Your task to perform on an android device: Is it going to rain today? Image 0: 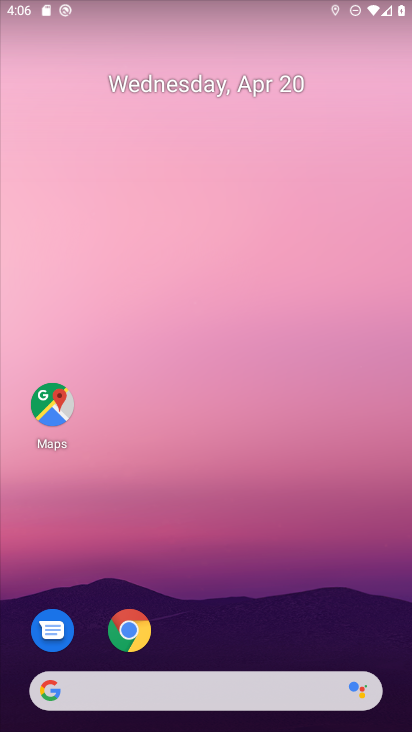
Step 0: drag from (277, 681) to (312, 65)
Your task to perform on an android device: Is it going to rain today? Image 1: 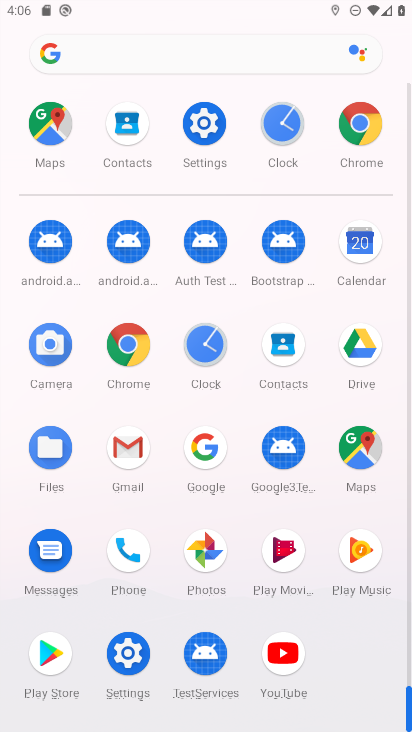
Step 1: click (136, 352)
Your task to perform on an android device: Is it going to rain today? Image 2: 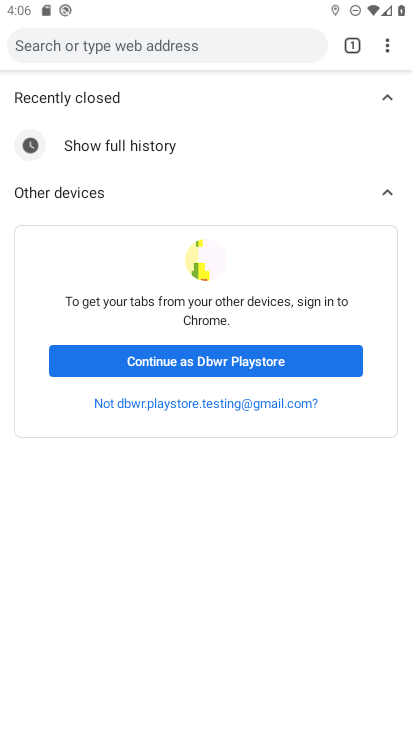
Step 2: click (193, 63)
Your task to perform on an android device: Is it going to rain today? Image 3: 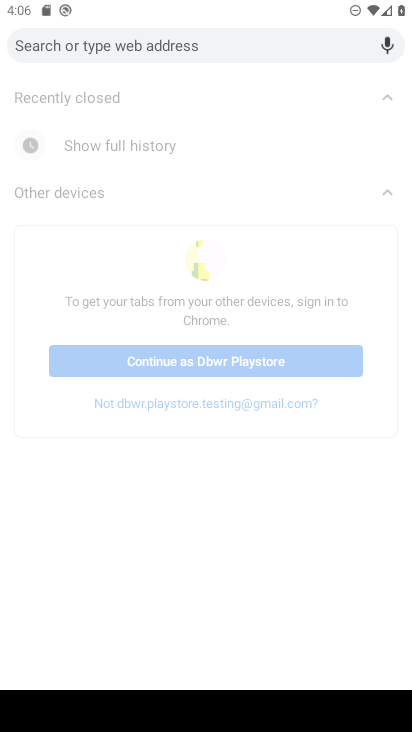
Step 3: type "rain today"
Your task to perform on an android device: Is it going to rain today? Image 4: 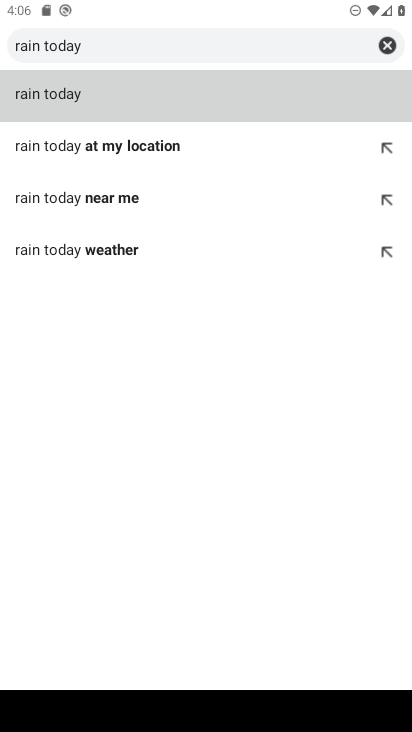
Step 4: click (255, 106)
Your task to perform on an android device: Is it going to rain today? Image 5: 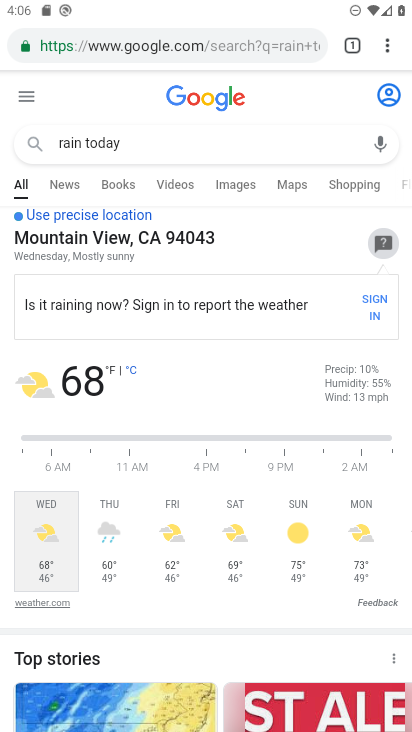
Step 5: task complete